Your task to perform on an android device: manage bookmarks in the chrome app Image 0: 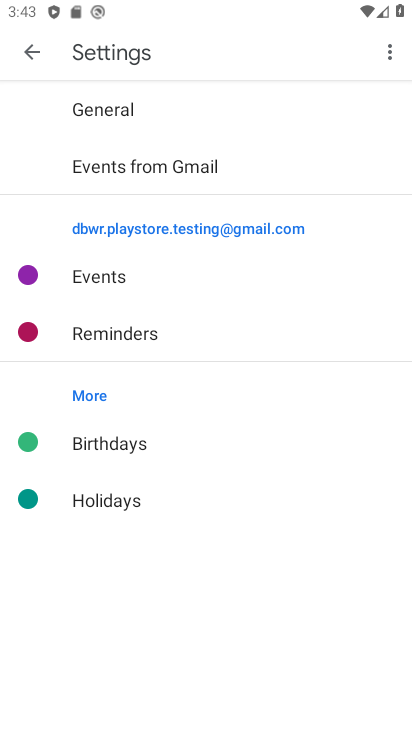
Step 0: press home button
Your task to perform on an android device: manage bookmarks in the chrome app Image 1: 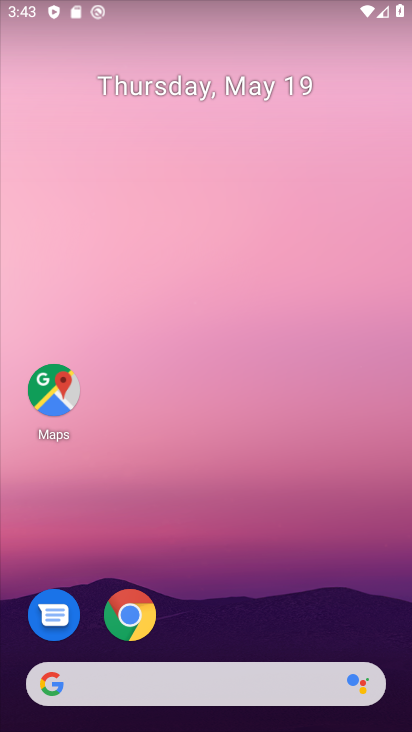
Step 1: click (132, 630)
Your task to perform on an android device: manage bookmarks in the chrome app Image 2: 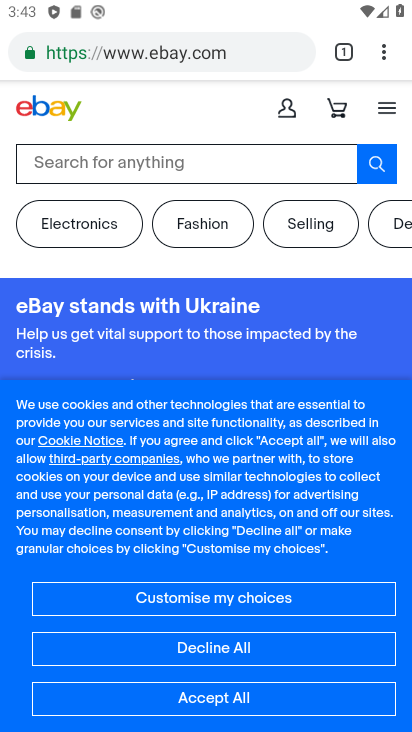
Step 2: click (385, 52)
Your task to perform on an android device: manage bookmarks in the chrome app Image 3: 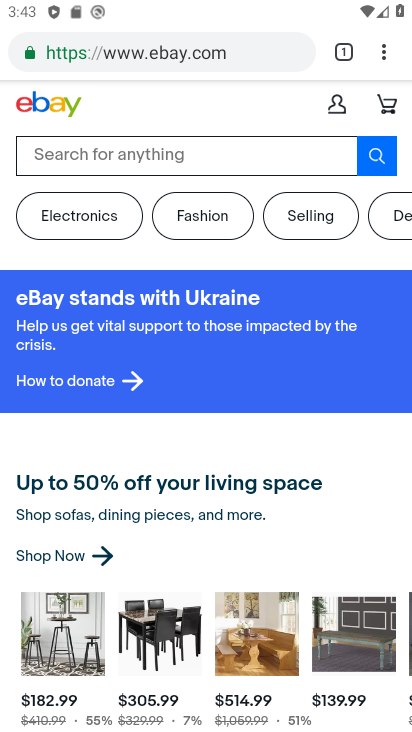
Step 3: drag from (385, 52) to (184, 210)
Your task to perform on an android device: manage bookmarks in the chrome app Image 4: 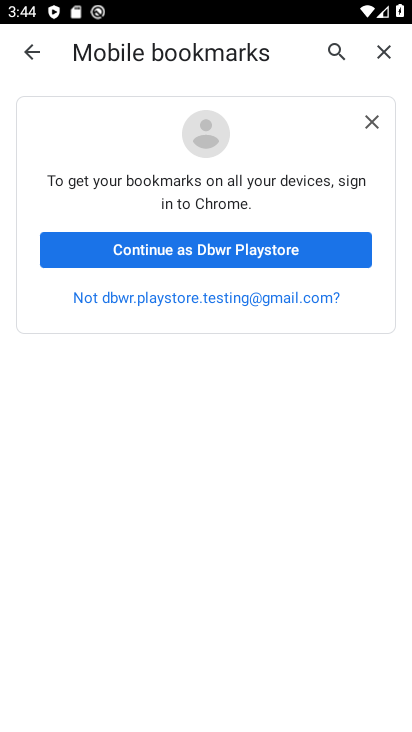
Step 4: click (184, 250)
Your task to perform on an android device: manage bookmarks in the chrome app Image 5: 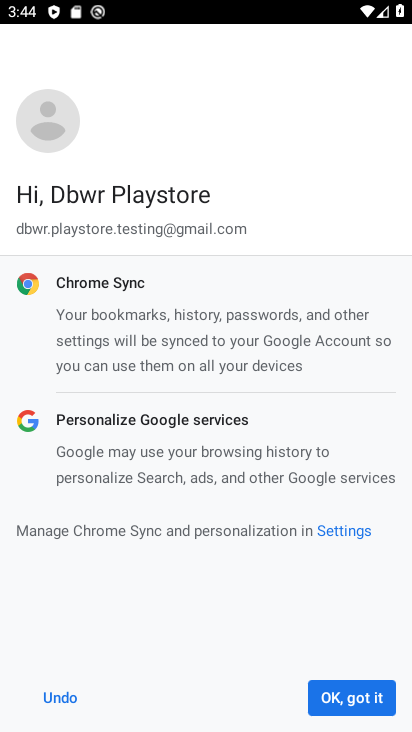
Step 5: click (340, 710)
Your task to perform on an android device: manage bookmarks in the chrome app Image 6: 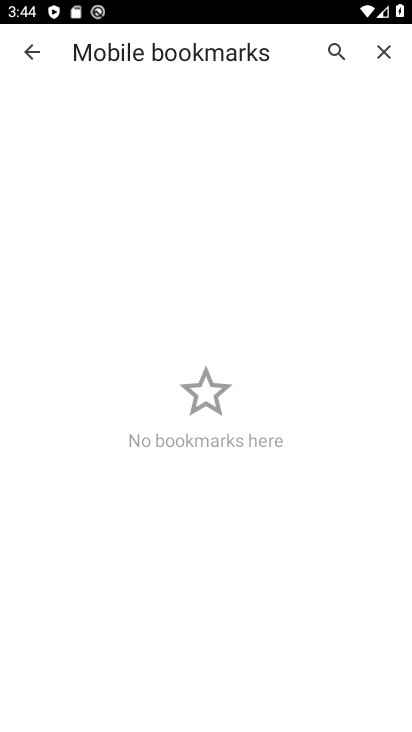
Step 6: task complete